Your task to perform on an android device: Open Yahoo.com Image 0: 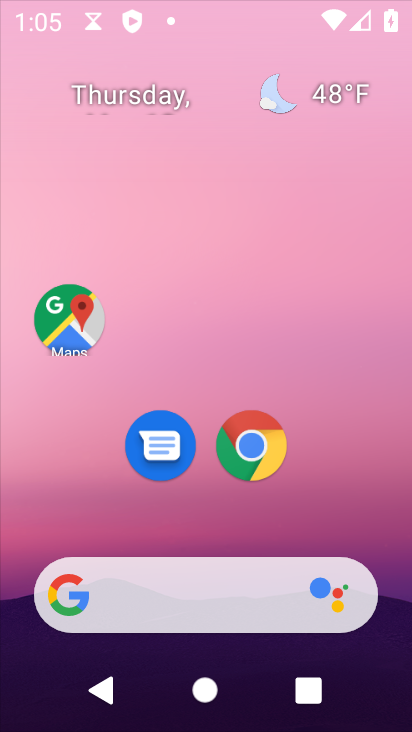
Step 0: click (218, 604)
Your task to perform on an android device: Open Yahoo.com Image 1: 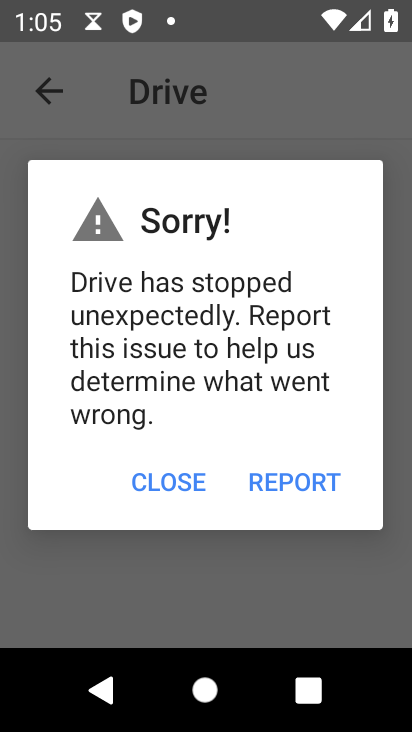
Step 1: press home button
Your task to perform on an android device: Open Yahoo.com Image 2: 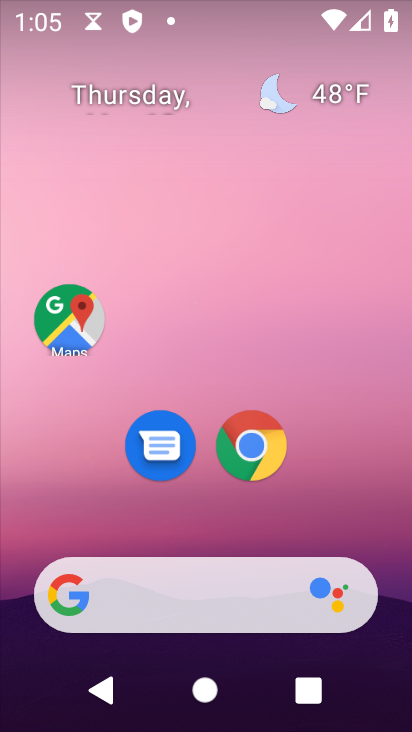
Step 2: click (251, 458)
Your task to perform on an android device: Open Yahoo.com Image 3: 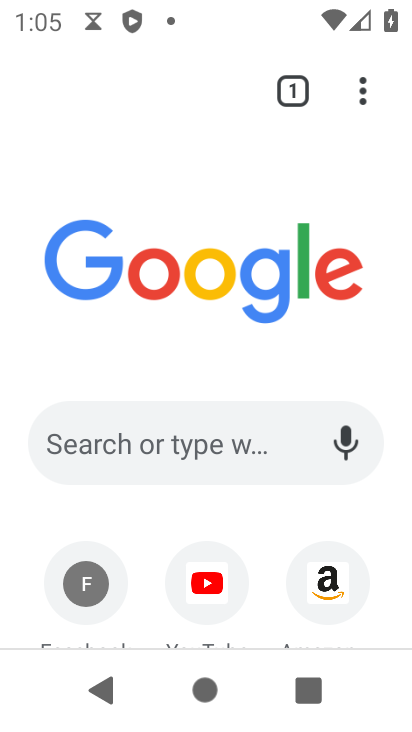
Step 3: drag from (275, 517) to (251, 242)
Your task to perform on an android device: Open Yahoo.com Image 4: 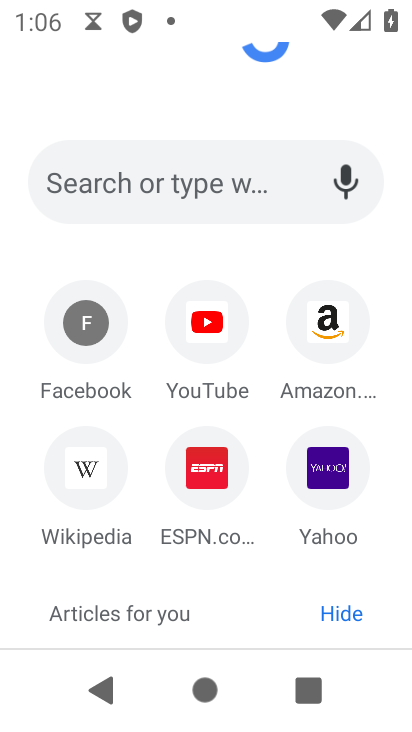
Step 4: click (319, 476)
Your task to perform on an android device: Open Yahoo.com Image 5: 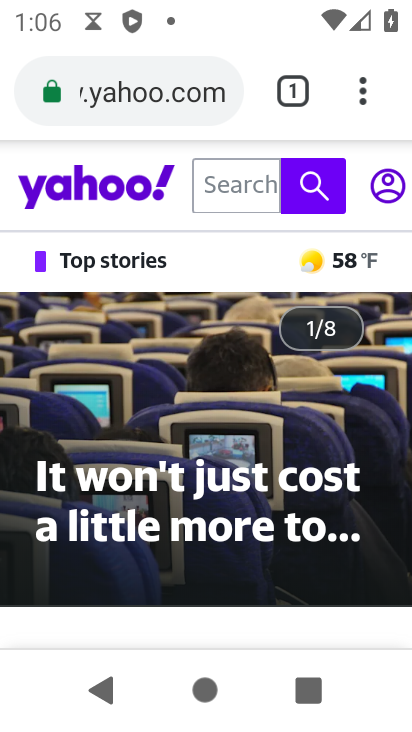
Step 5: task complete